Your task to perform on an android device: toggle javascript in the chrome app Image 0: 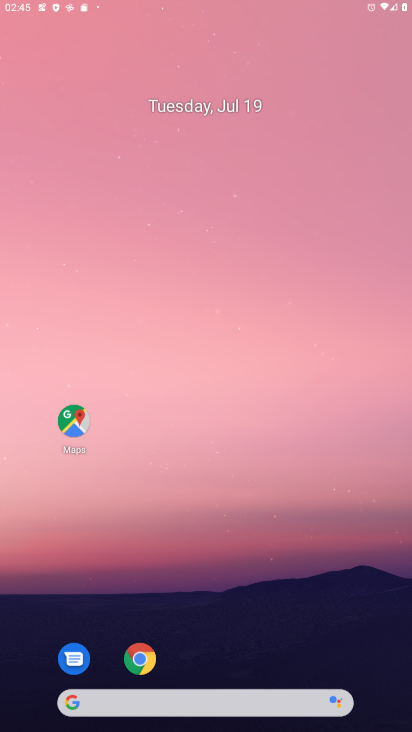
Step 0: press home button
Your task to perform on an android device: toggle javascript in the chrome app Image 1: 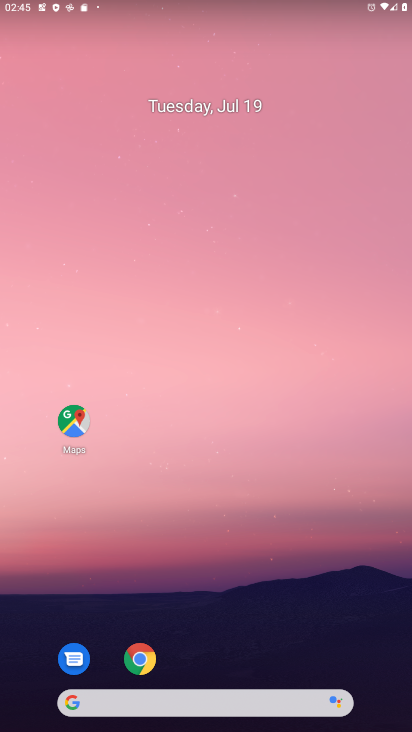
Step 1: click (139, 666)
Your task to perform on an android device: toggle javascript in the chrome app Image 2: 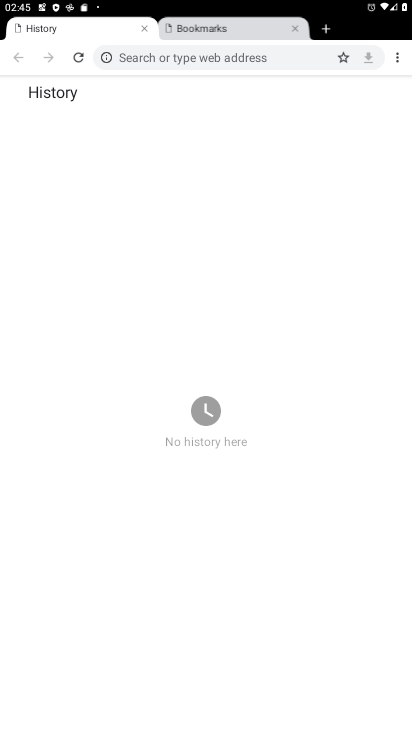
Step 2: drag from (394, 65) to (265, 303)
Your task to perform on an android device: toggle javascript in the chrome app Image 3: 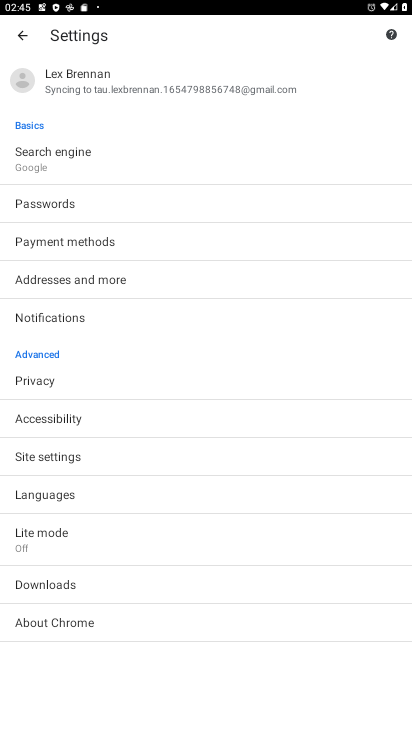
Step 3: click (20, 448)
Your task to perform on an android device: toggle javascript in the chrome app Image 4: 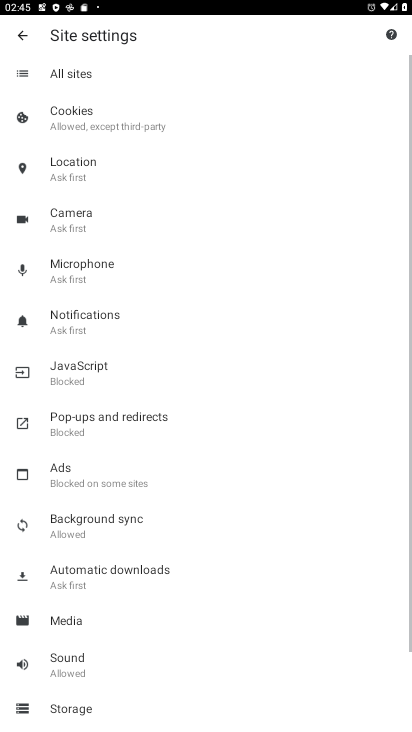
Step 4: click (24, 382)
Your task to perform on an android device: toggle javascript in the chrome app Image 5: 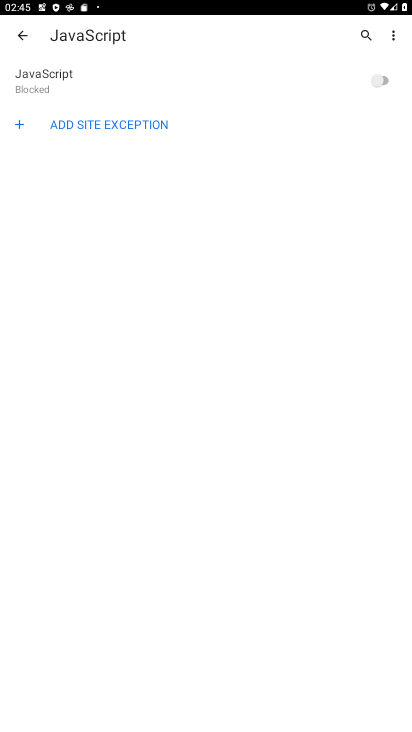
Step 5: click (188, 70)
Your task to perform on an android device: toggle javascript in the chrome app Image 6: 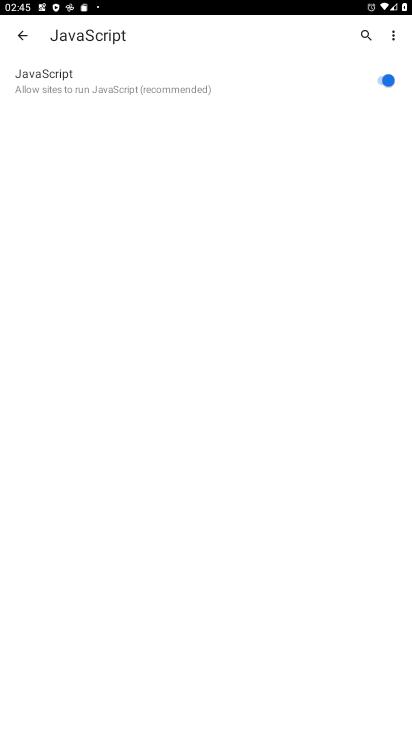
Step 6: task complete